Your task to perform on an android device: Open Wikipedia Image 0: 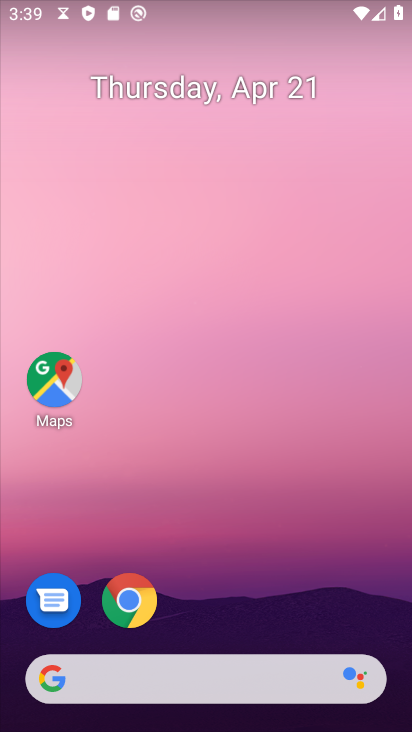
Step 0: click (128, 600)
Your task to perform on an android device: Open Wikipedia Image 1: 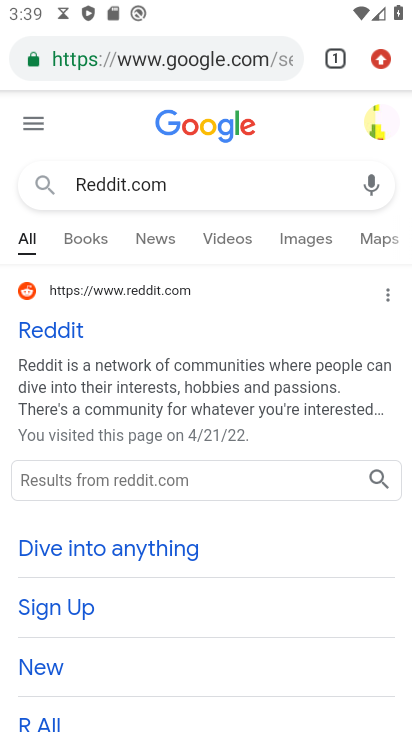
Step 1: click (268, 56)
Your task to perform on an android device: Open Wikipedia Image 2: 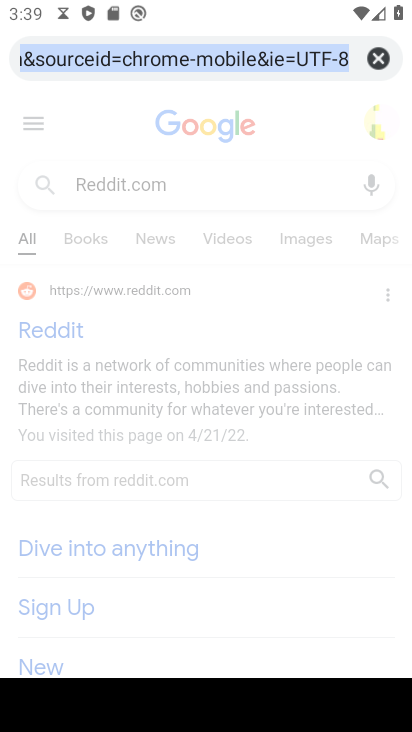
Step 2: click (380, 60)
Your task to perform on an android device: Open Wikipedia Image 3: 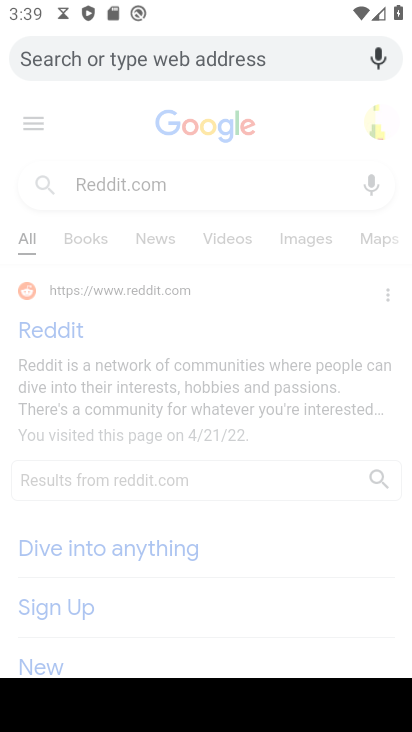
Step 3: click (327, 68)
Your task to perform on an android device: Open Wikipedia Image 4: 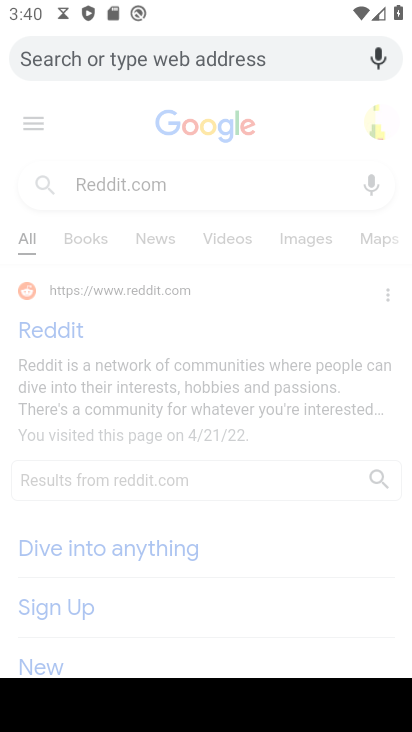
Step 4: type "Wikipedia"
Your task to perform on an android device: Open Wikipedia Image 5: 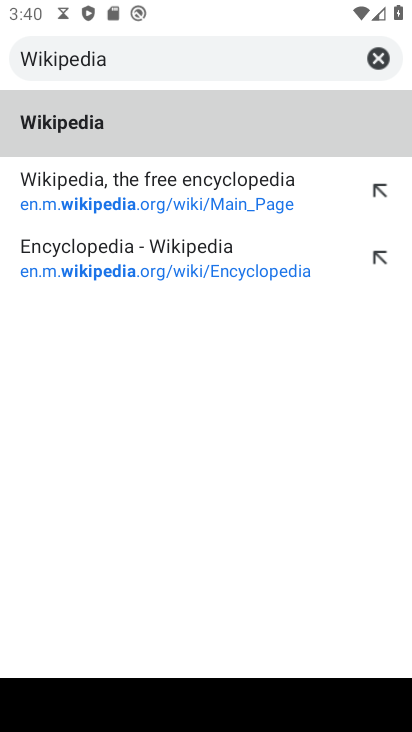
Step 5: click (160, 177)
Your task to perform on an android device: Open Wikipedia Image 6: 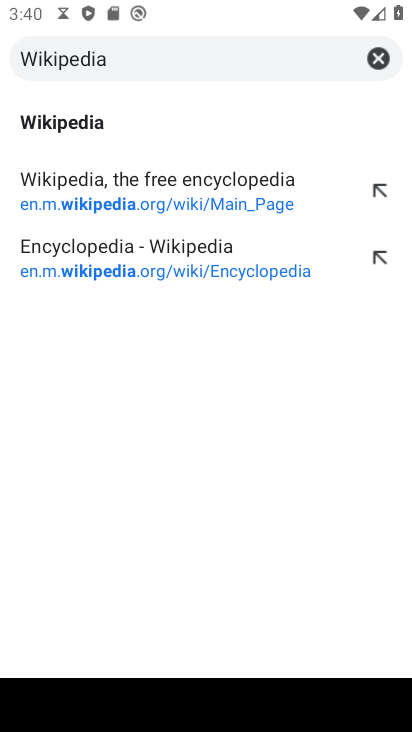
Step 6: click (76, 122)
Your task to perform on an android device: Open Wikipedia Image 7: 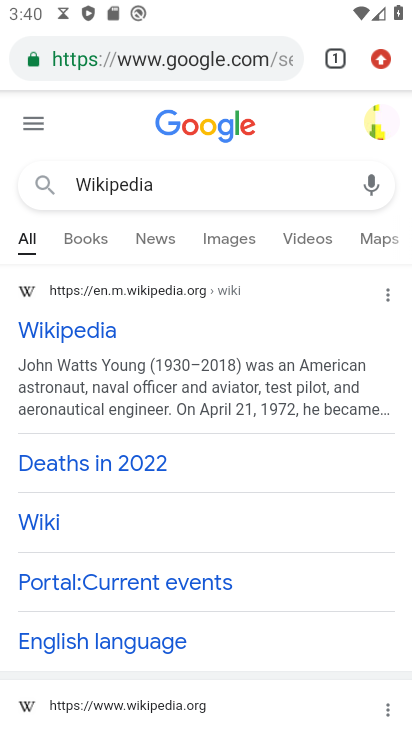
Step 7: task complete